Your task to perform on an android device: What's on my calendar tomorrow? Image 0: 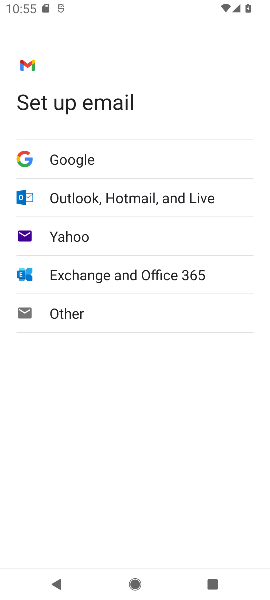
Step 0: press home button
Your task to perform on an android device: What's on my calendar tomorrow? Image 1: 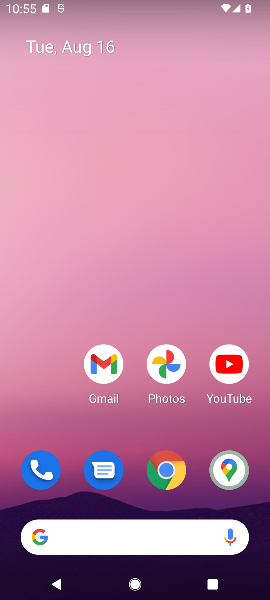
Step 1: drag from (58, 392) to (154, 24)
Your task to perform on an android device: What's on my calendar tomorrow? Image 2: 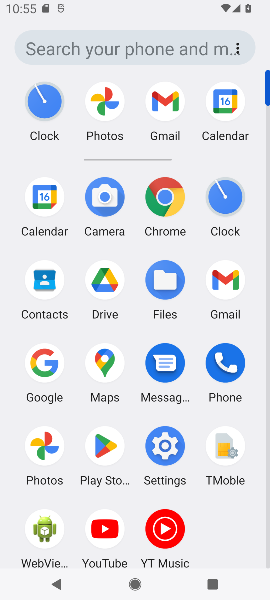
Step 2: click (227, 103)
Your task to perform on an android device: What's on my calendar tomorrow? Image 3: 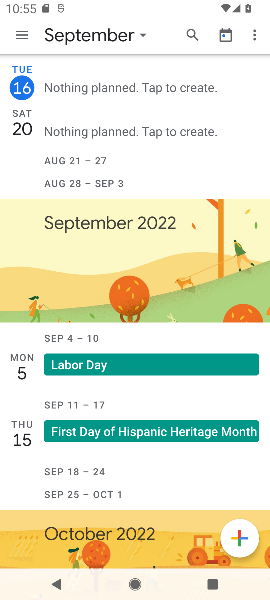
Step 3: click (24, 33)
Your task to perform on an android device: What's on my calendar tomorrow? Image 4: 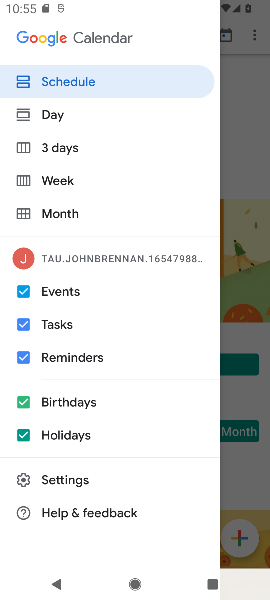
Step 4: click (63, 174)
Your task to perform on an android device: What's on my calendar tomorrow? Image 5: 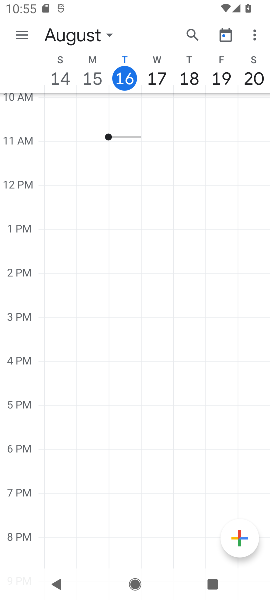
Step 5: click (157, 70)
Your task to perform on an android device: What's on my calendar tomorrow? Image 6: 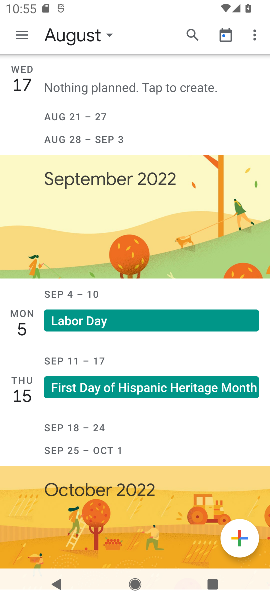
Step 6: task complete